Your task to perform on an android device: Open Amazon Image 0: 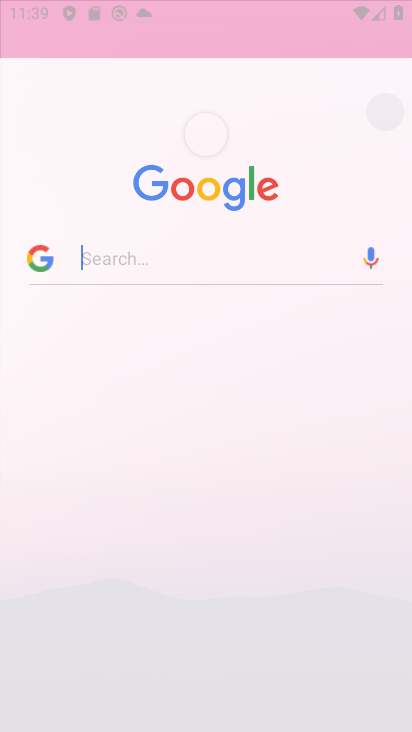
Step 0: drag from (399, 691) to (329, 75)
Your task to perform on an android device: Open Amazon Image 1: 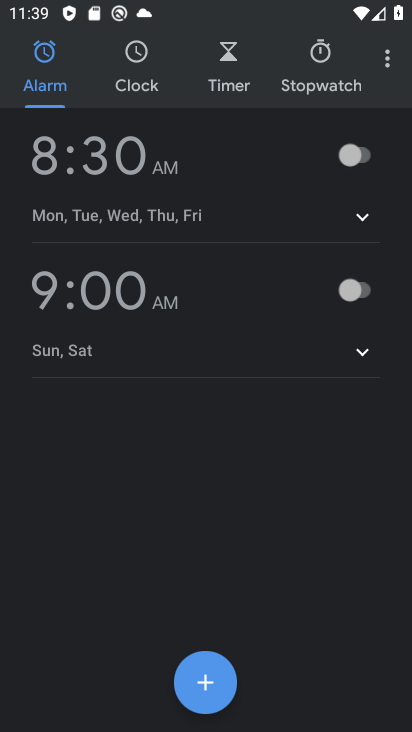
Step 1: press home button
Your task to perform on an android device: Open Amazon Image 2: 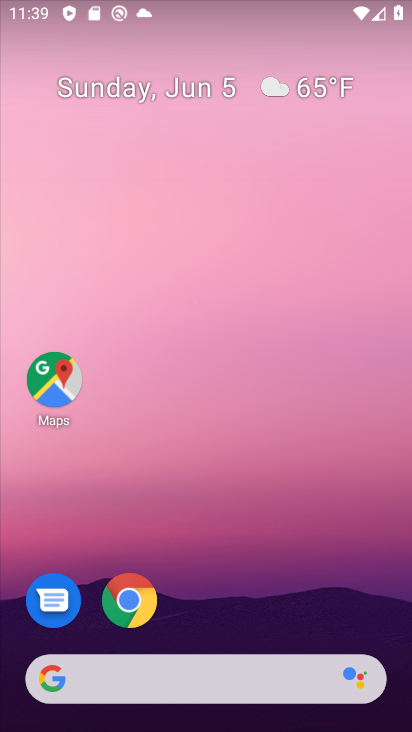
Step 2: click (131, 598)
Your task to perform on an android device: Open Amazon Image 3: 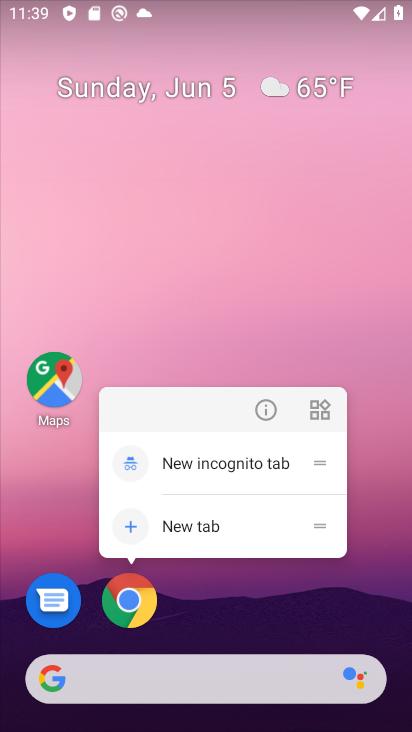
Step 3: click (369, 718)
Your task to perform on an android device: Open Amazon Image 4: 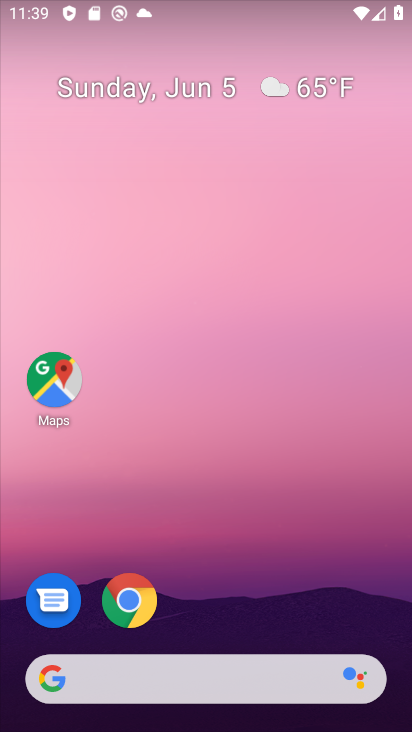
Step 4: click (117, 587)
Your task to perform on an android device: Open Amazon Image 5: 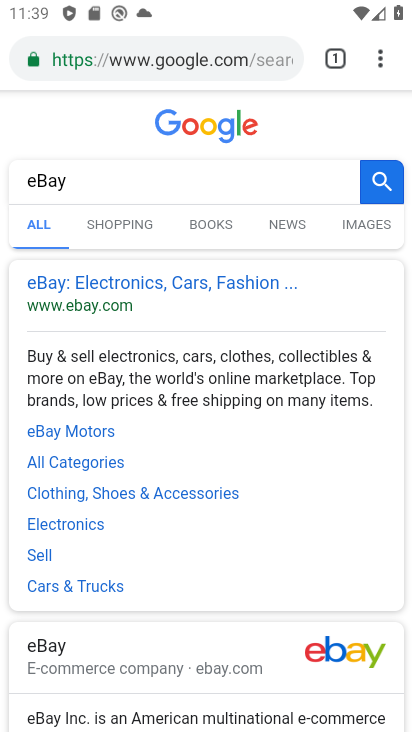
Step 5: click (287, 51)
Your task to perform on an android device: Open Amazon Image 6: 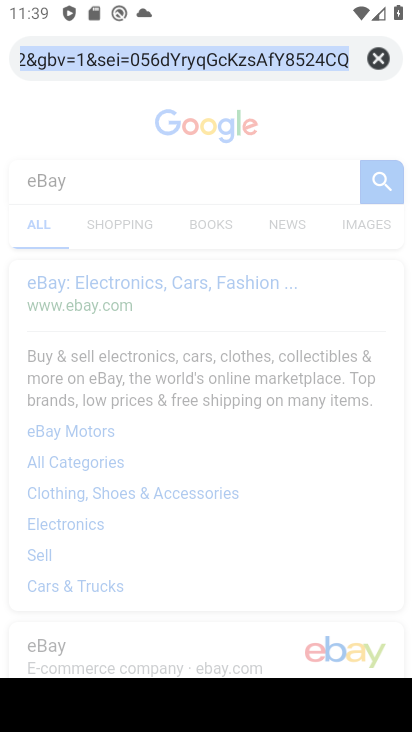
Step 6: click (366, 54)
Your task to perform on an android device: Open Amazon Image 7: 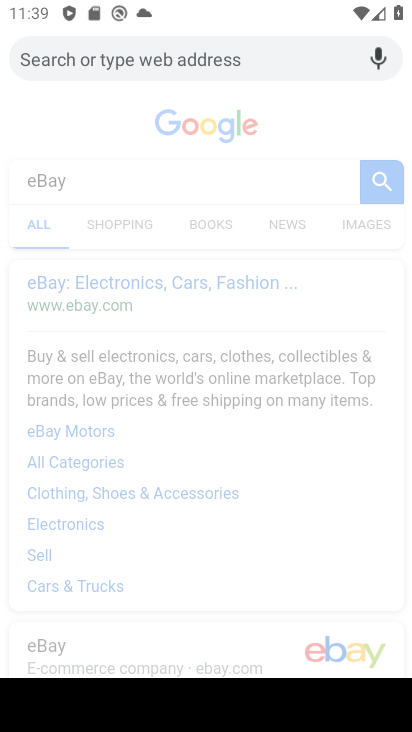
Step 7: type "Amazon"
Your task to perform on an android device: Open Amazon Image 8: 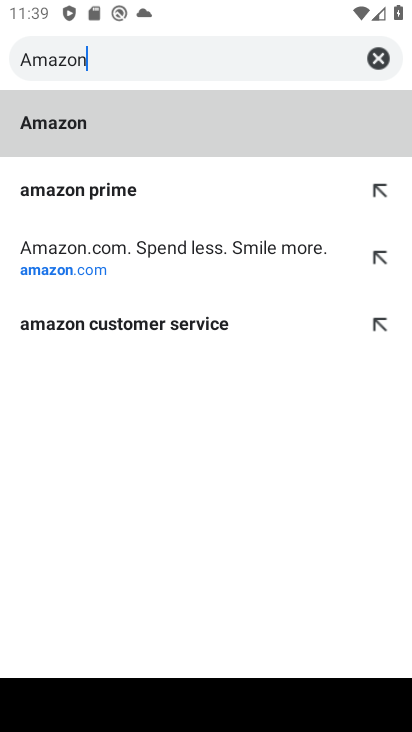
Step 8: click (68, 116)
Your task to perform on an android device: Open Amazon Image 9: 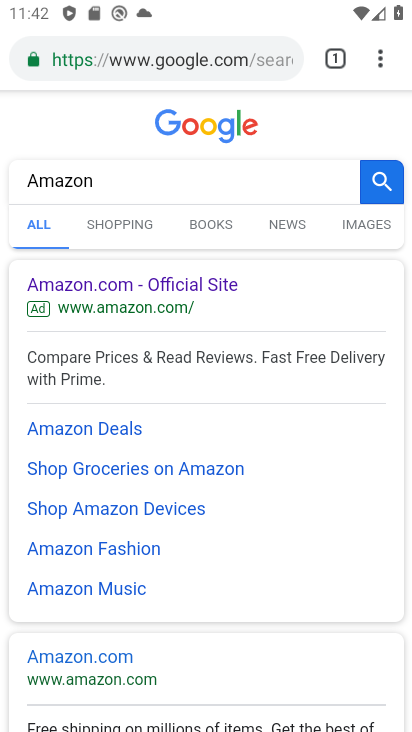
Step 9: task complete